Your task to perform on an android device: Open network settings Image 0: 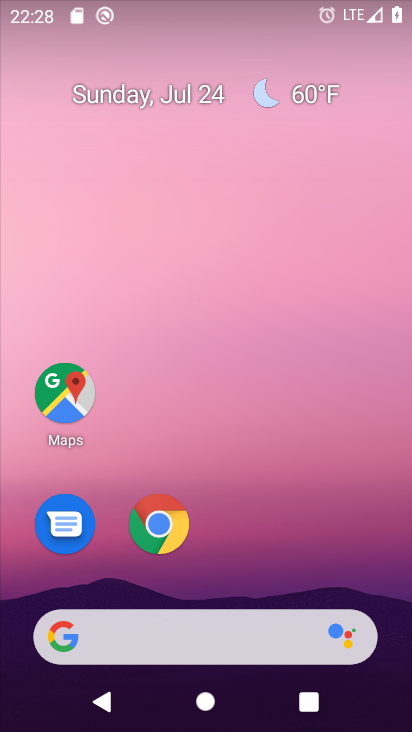
Step 0: click (220, 632)
Your task to perform on an android device: Open network settings Image 1: 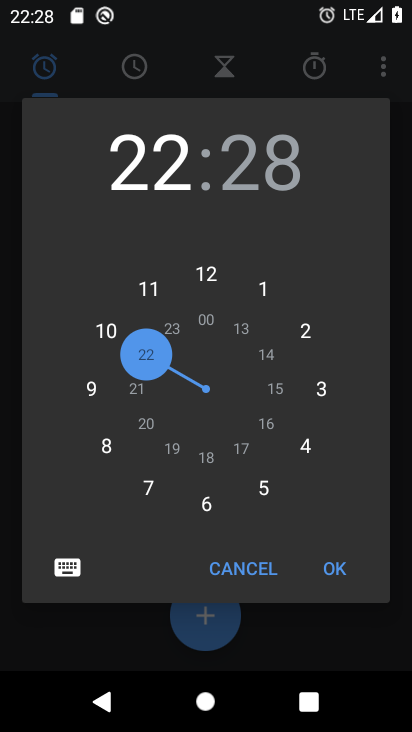
Step 1: press home button
Your task to perform on an android device: Open network settings Image 2: 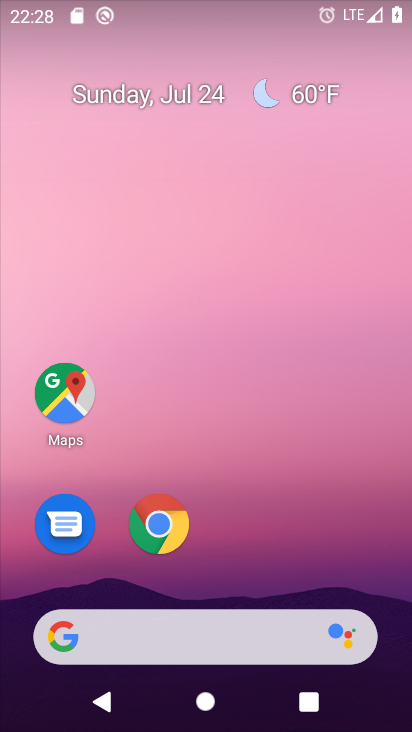
Step 2: drag from (245, 545) to (409, 104)
Your task to perform on an android device: Open network settings Image 3: 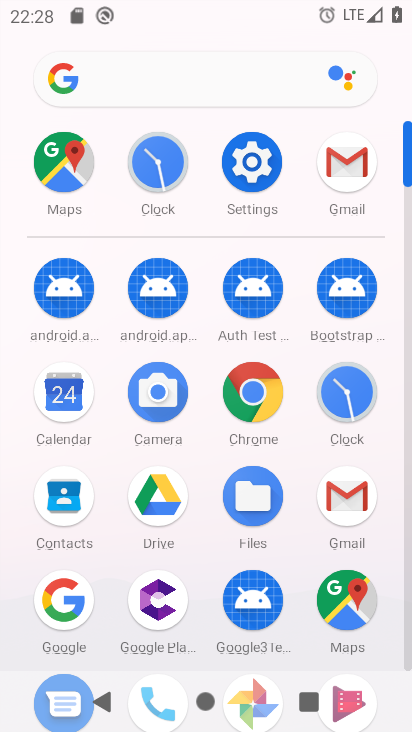
Step 3: click (257, 167)
Your task to perform on an android device: Open network settings Image 4: 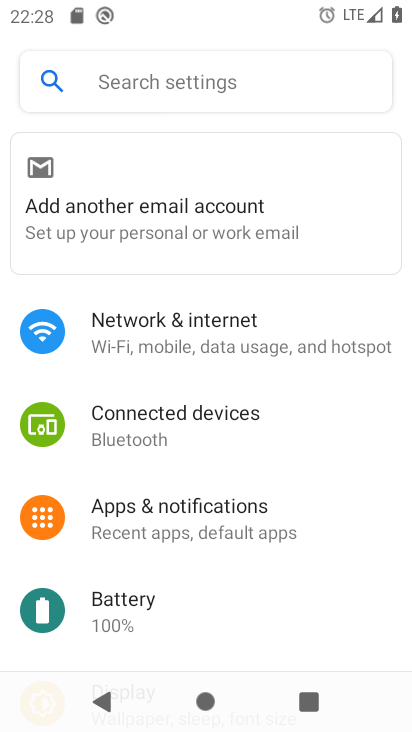
Step 4: click (239, 351)
Your task to perform on an android device: Open network settings Image 5: 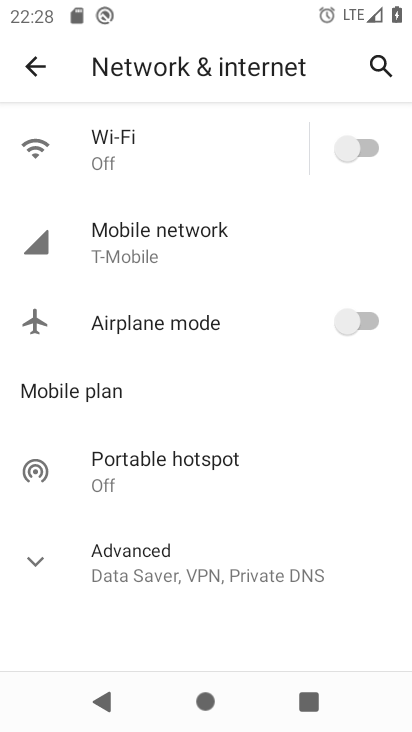
Step 5: task complete